Your task to perform on an android device: delete the emails in spam in the gmail app Image 0: 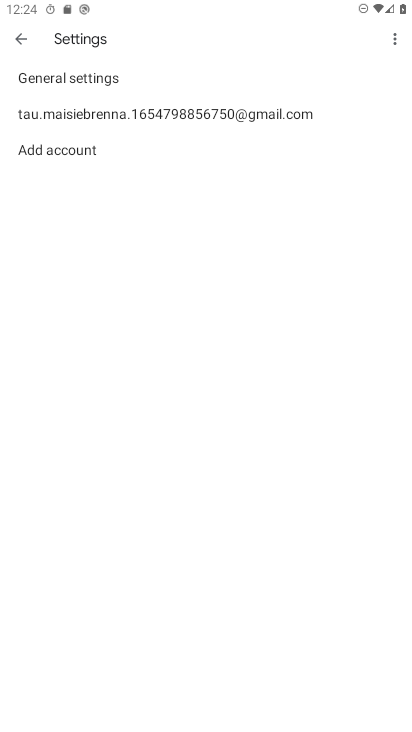
Step 0: click (18, 38)
Your task to perform on an android device: delete the emails in spam in the gmail app Image 1: 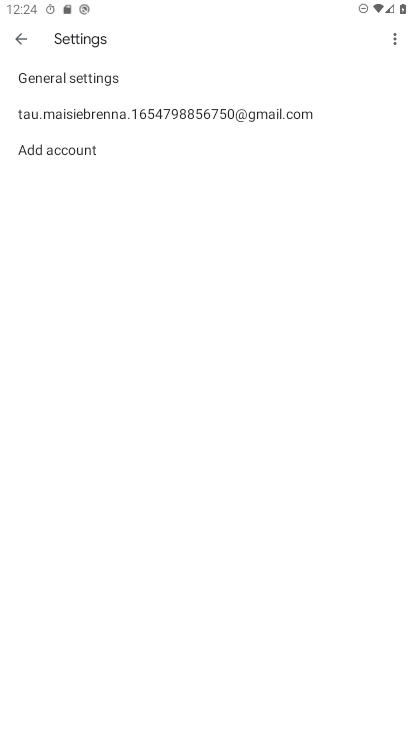
Step 1: click (17, 43)
Your task to perform on an android device: delete the emails in spam in the gmail app Image 2: 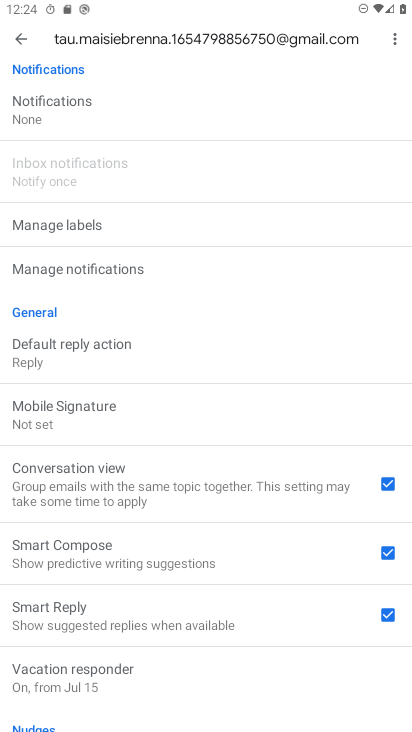
Step 2: click (18, 39)
Your task to perform on an android device: delete the emails in spam in the gmail app Image 3: 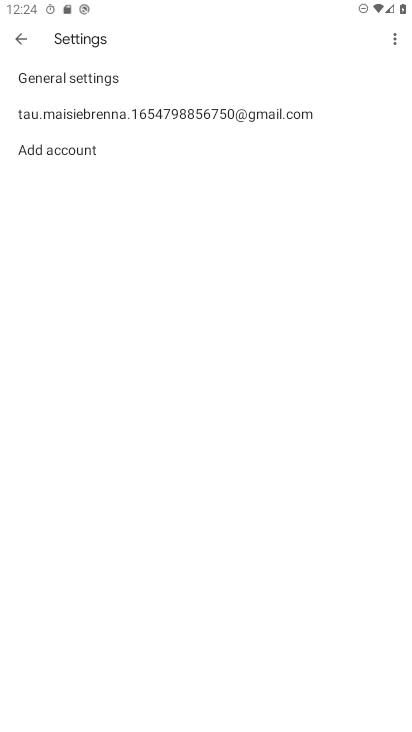
Step 3: click (18, 39)
Your task to perform on an android device: delete the emails in spam in the gmail app Image 4: 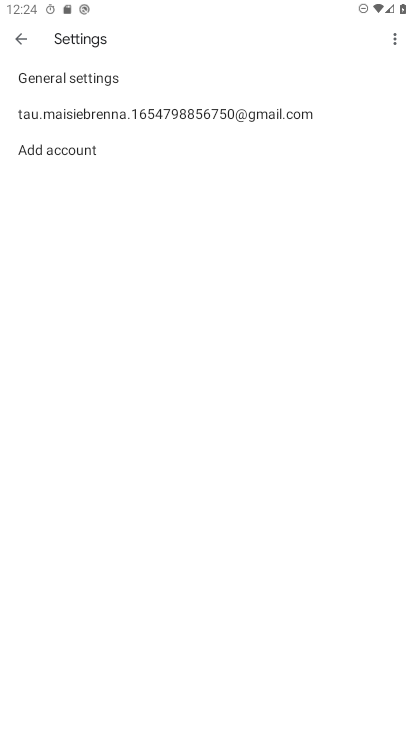
Step 4: click (18, 39)
Your task to perform on an android device: delete the emails in spam in the gmail app Image 5: 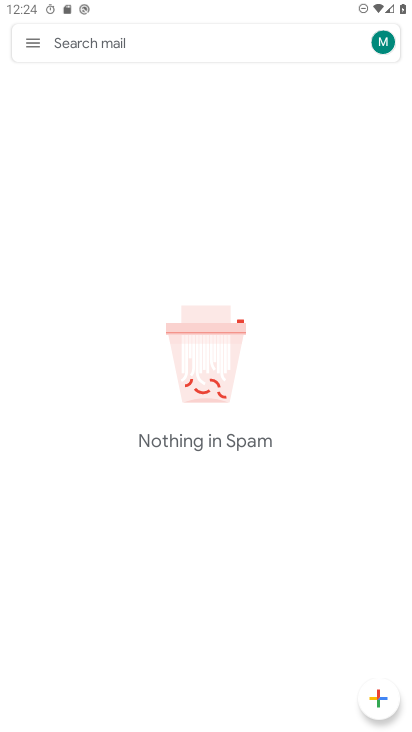
Step 5: click (18, 39)
Your task to perform on an android device: delete the emails in spam in the gmail app Image 6: 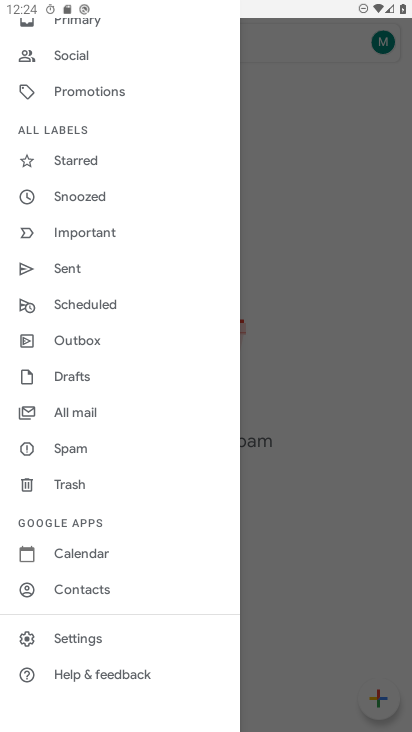
Step 6: click (73, 449)
Your task to perform on an android device: delete the emails in spam in the gmail app Image 7: 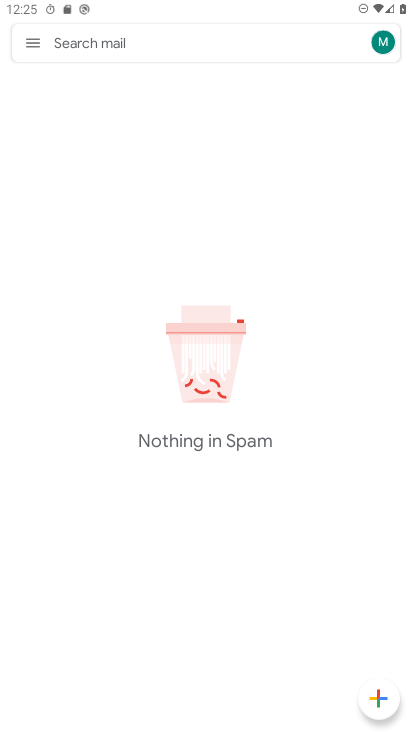
Step 7: task complete